Your task to perform on an android device: toggle pop-ups in chrome Image 0: 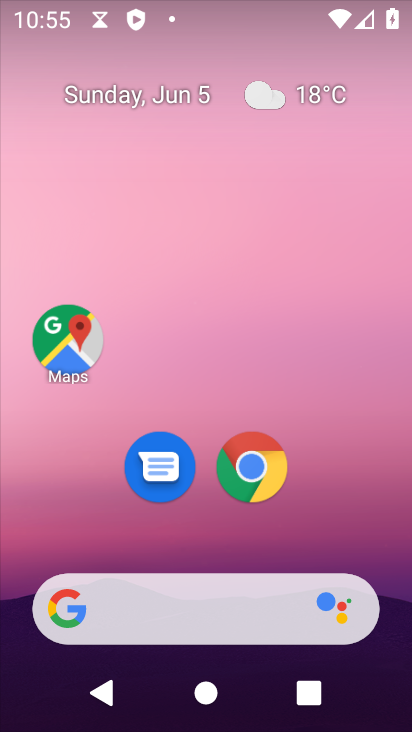
Step 0: click (202, 25)
Your task to perform on an android device: toggle pop-ups in chrome Image 1: 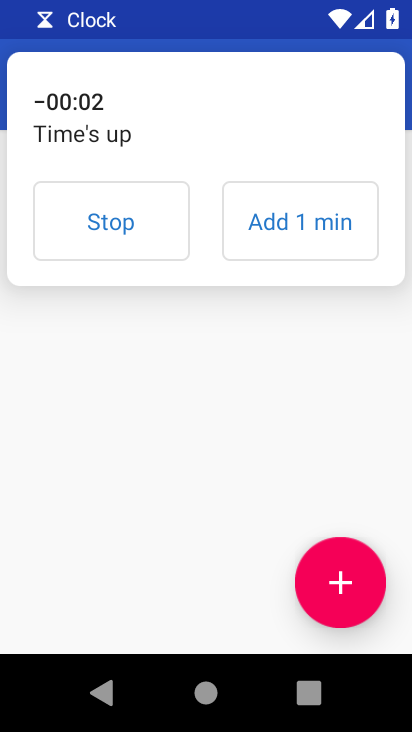
Step 1: press home button
Your task to perform on an android device: toggle pop-ups in chrome Image 2: 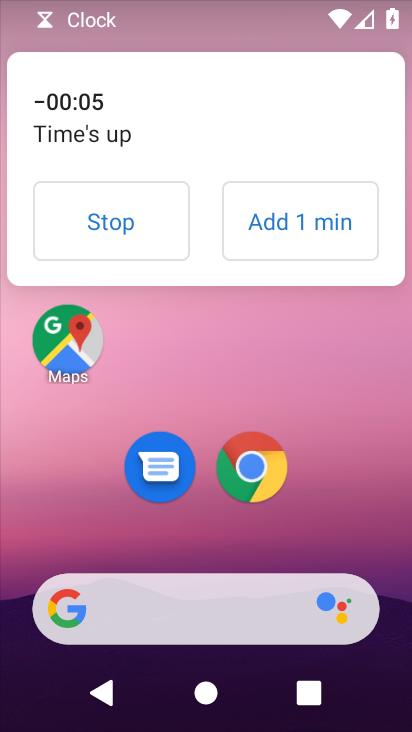
Step 2: click (233, 560)
Your task to perform on an android device: toggle pop-ups in chrome Image 3: 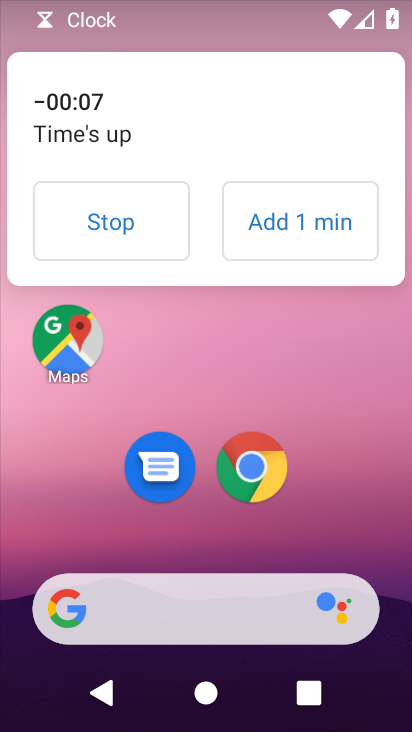
Step 3: click (158, 249)
Your task to perform on an android device: toggle pop-ups in chrome Image 4: 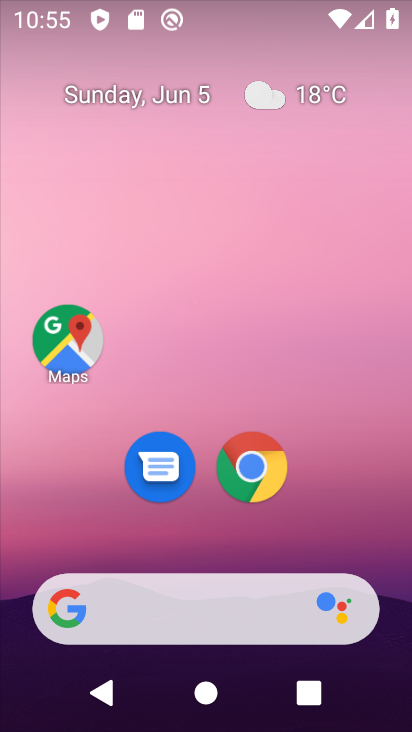
Step 4: click (254, 465)
Your task to perform on an android device: toggle pop-ups in chrome Image 5: 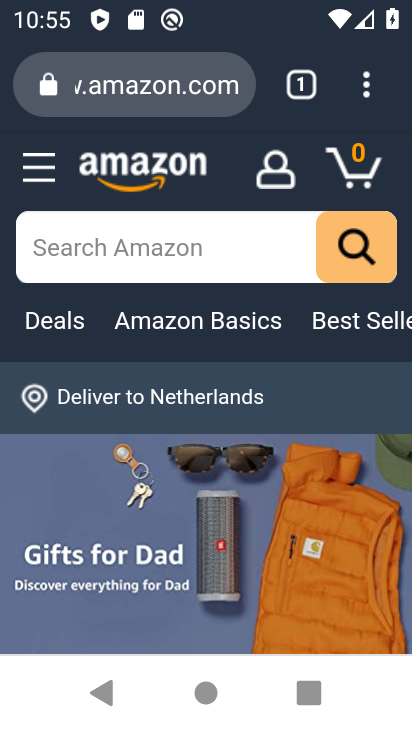
Step 5: click (360, 92)
Your task to perform on an android device: toggle pop-ups in chrome Image 6: 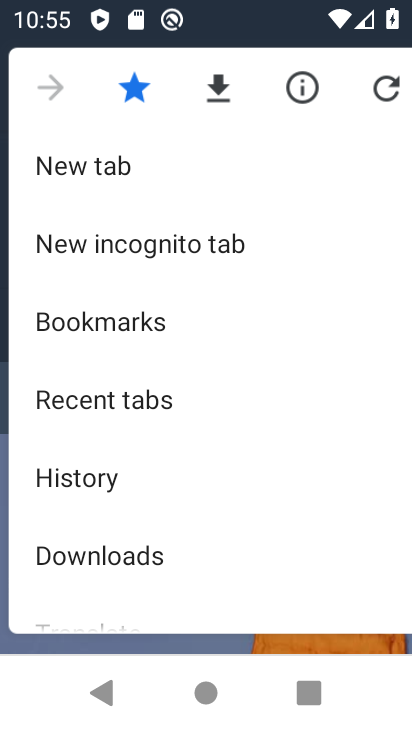
Step 6: drag from (97, 522) to (67, 198)
Your task to perform on an android device: toggle pop-ups in chrome Image 7: 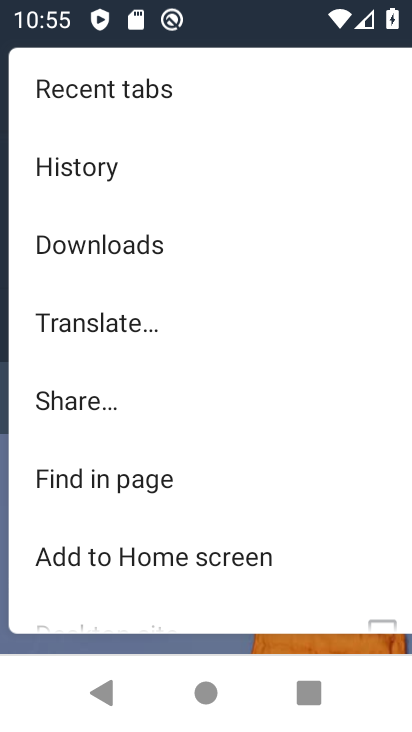
Step 7: drag from (70, 586) to (65, 220)
Your task to perform on an android device: toggle pop-ups in chrome Image 8: 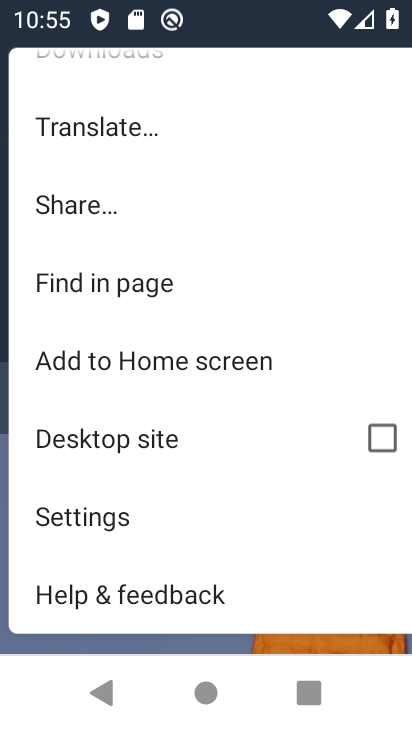
Step 8: click (99, 509)
Your task to perform on an android device: toggle pop-ups in chrome Image 9: 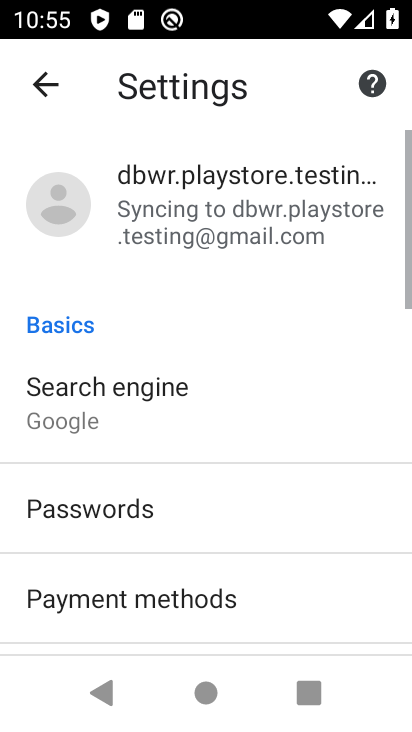
Step 9: drag from (99, 509) to (55, 178)
Your task to perform on an android device: toggle pop-ups in chrome Image 10: 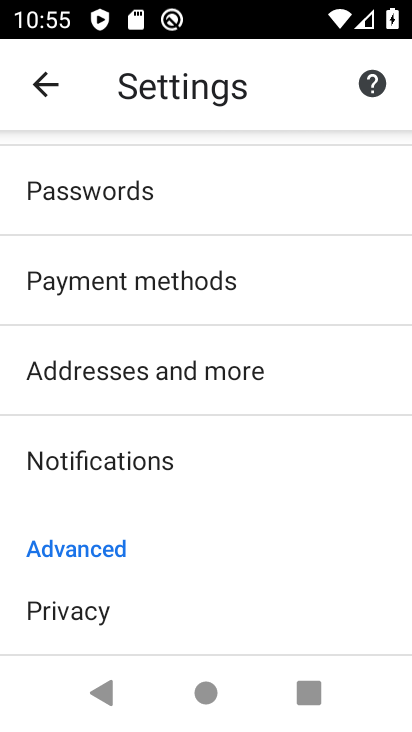
Step 10: drag from (143, 483) to (93, 186)
Your task to perform on an android device: toggle pop-ups in chrome Image 11: 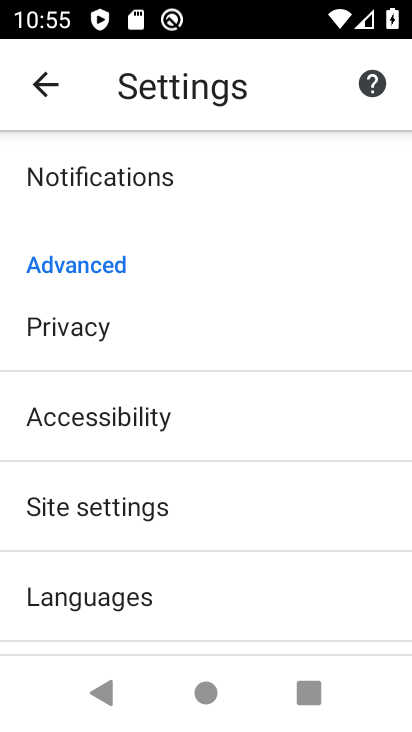
Step 11: click (128, 515)
Your task to perform on an android device: toggle pop-ups in chrome Image 12: 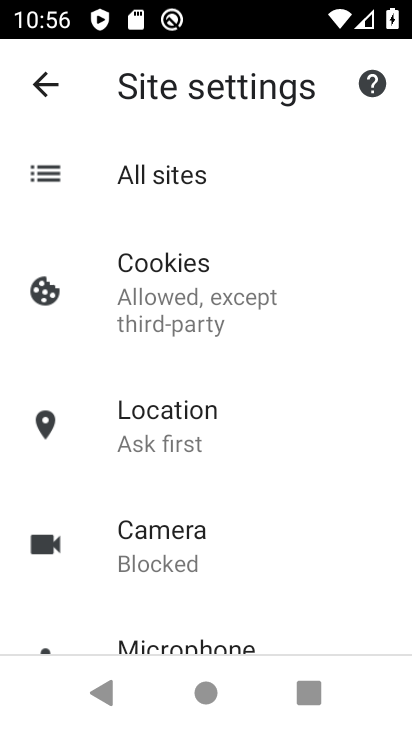
Step 12: drag from (165, 637) to (132, 311)
Your task to perform on an android device: toggle pop-ups in chrome Image 13: 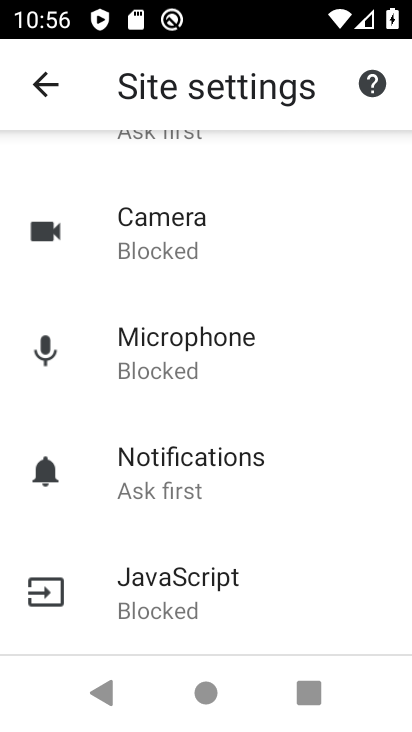
Step 13: drag from (193, 471) to (153, 255)
Your task to perform on an android device: toggle pop-ups in chrome Image 14: 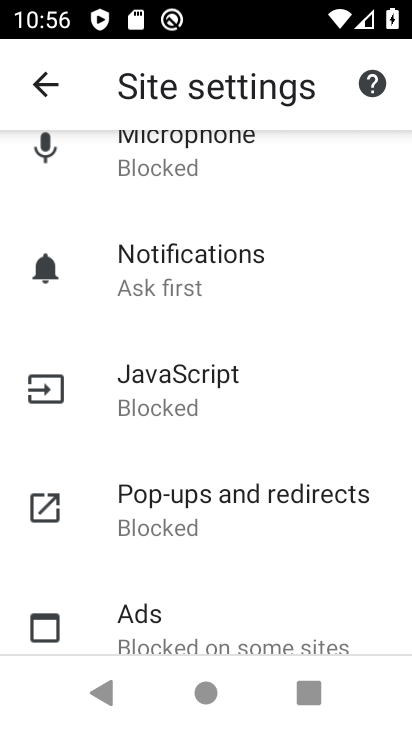
Step 14: click (134, 506)
Your task to perform on an android device: toggle pop-ups in chrome Image 15: 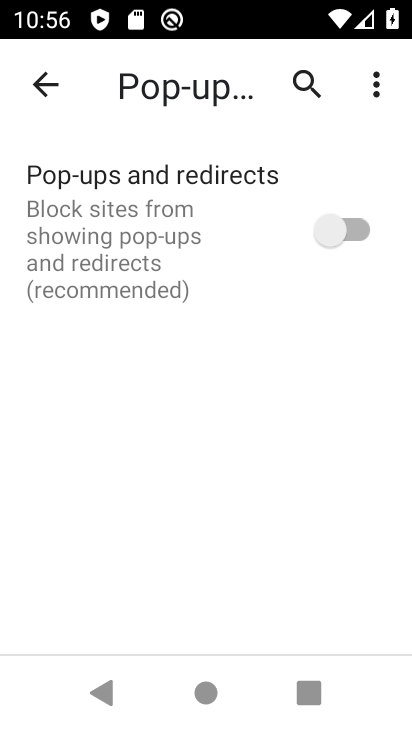
Step 15: click (329, 221)
Your task to perform on an android device: toggle pop-ups in chrome Image 16: 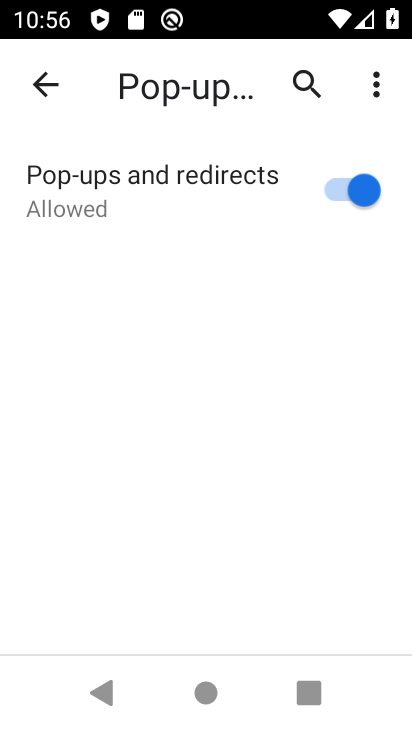
Step 16: task complete